Your task to perform on an android device: turn off javascript in the chrome app Image 0: 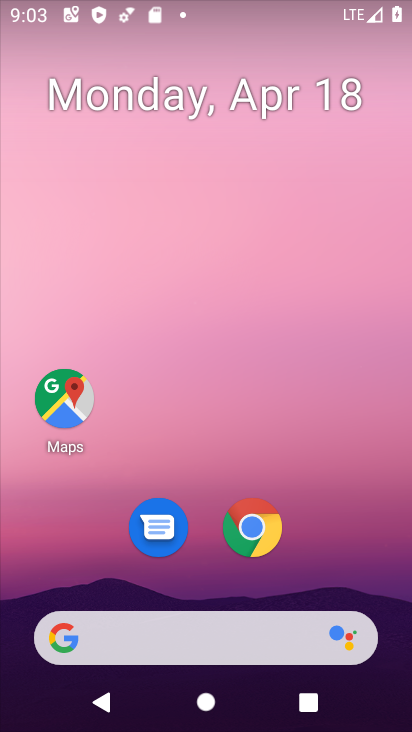
Step 0: drag from (322, 495) to (265, 17)
Your task to perform on an android device: turn off javascript in the chrome app Image 1: 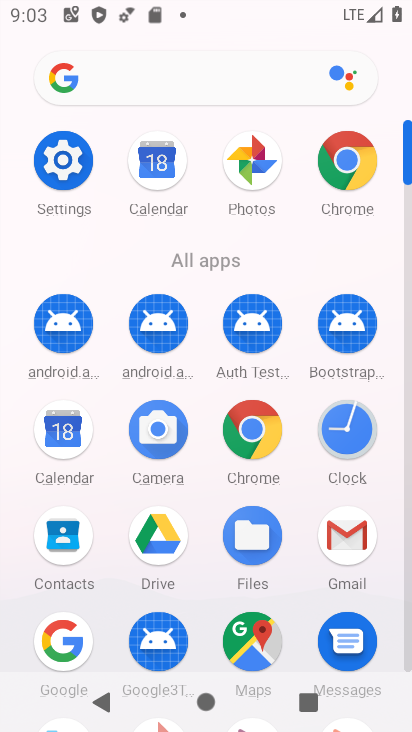
Step 1: click (347, 157)
Your task to perform on an android device: turn off javascript in the chrome app Image 2: 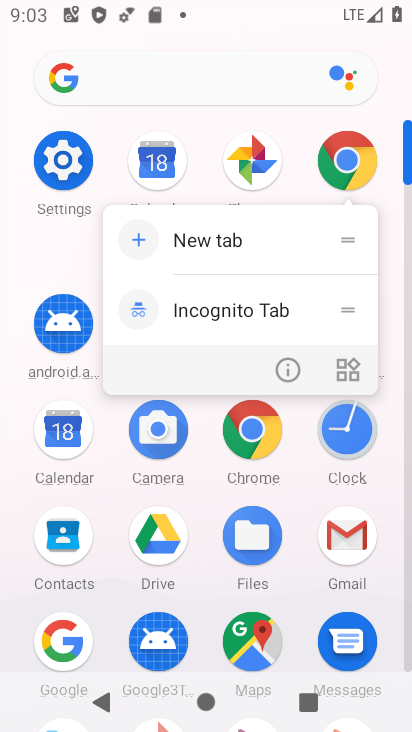
Step 2: click (347, 157)
Your task to perform on an android device: turn off javascript in the chrome app Image 3: 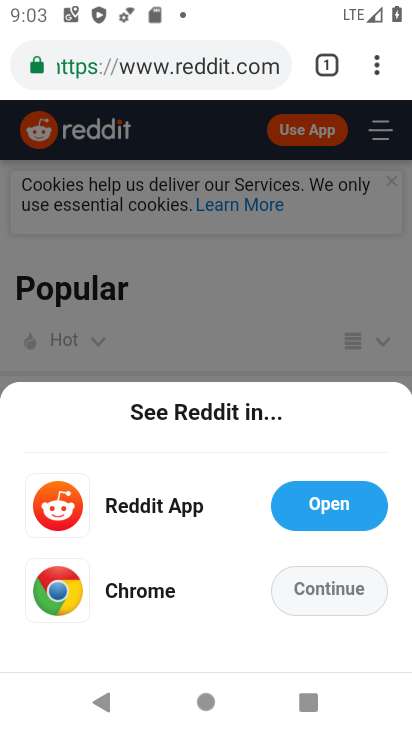
Step 3: drag from (379, 65) to (215, 572)
Your task to perform on an android device: turn off javascript in the chrome app Image 4: 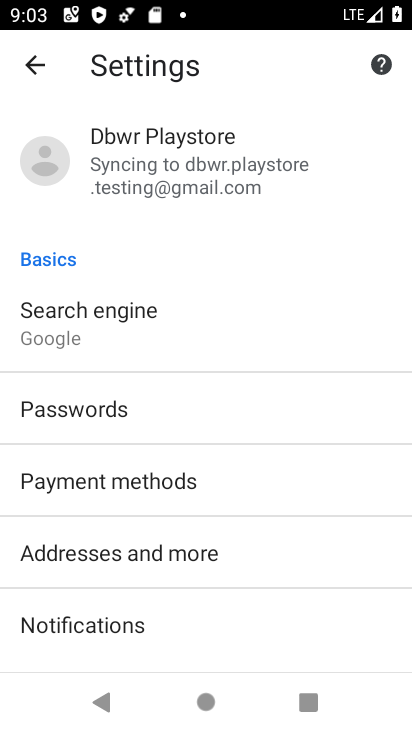
Step 4: drag from (265, 596) to (292, 121)
Your task to perform on an android device: turn off javascript in the chrome app Image 5: 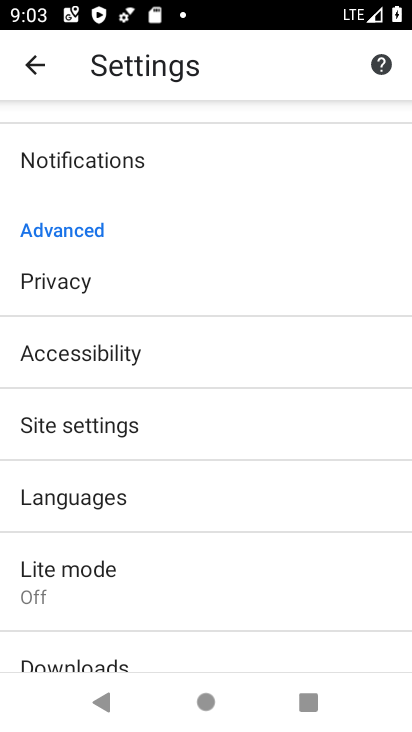
Step 5: drag from (238, 571) to (268, 225)
Your task to perform on an android device: turn off javascript in the chrome app Image 6: 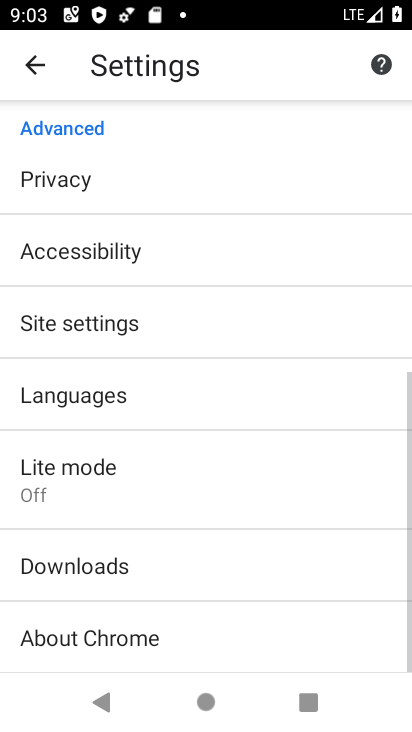
Step 6: click (106, 322)
Your task to perform on an android device: turn off javascript in the chrome app Image 7: 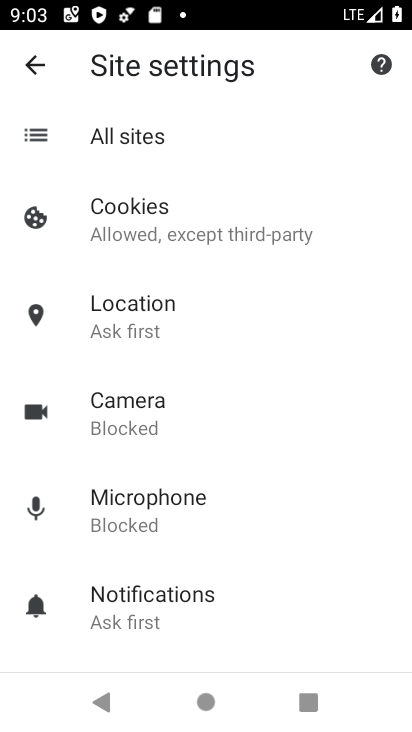
Step 7: drag from (238, 508) to (246, 184)
Your task to perform on an android device: turn off javascript in the chrome app Image 8: 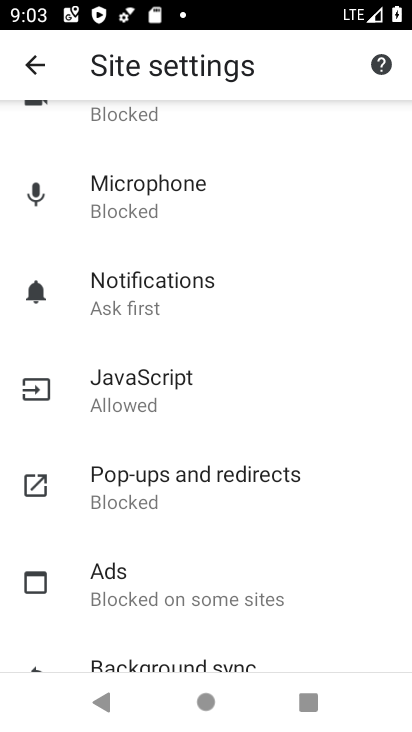
Step 8: click (200, 392)
Your task to perform on an android device: turn off javascript in the chrome app Image 9: 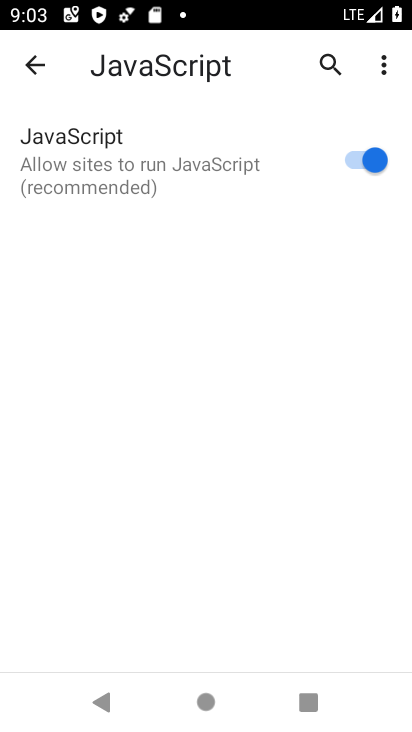
Step 9: click (354, 154)
Your task to perform on an android device: turn off javascript in the chrome app Image 10: 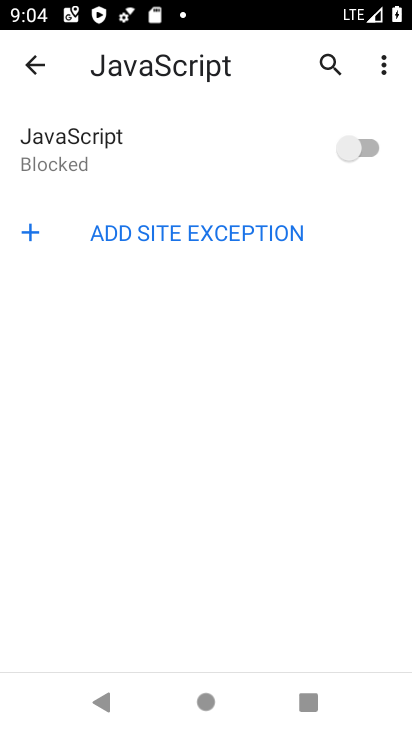
Step 10: task complete